Your task to perform on an android device: Open privacy settings Image 0: 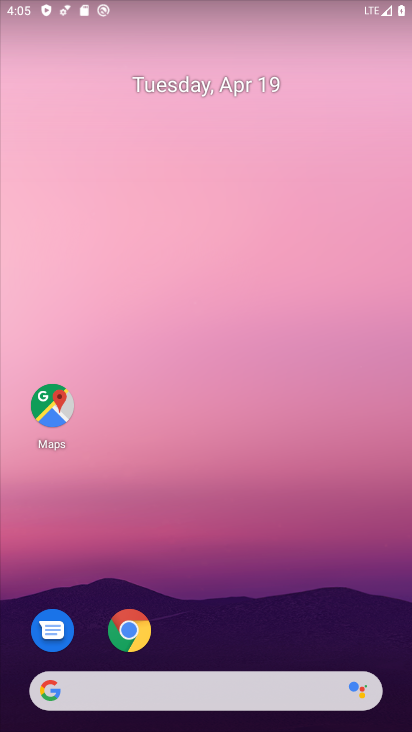
Step 0: drag from (203, 648) to (211, 166)
Your task to perform on an android device: Open privacy settings Image 1: 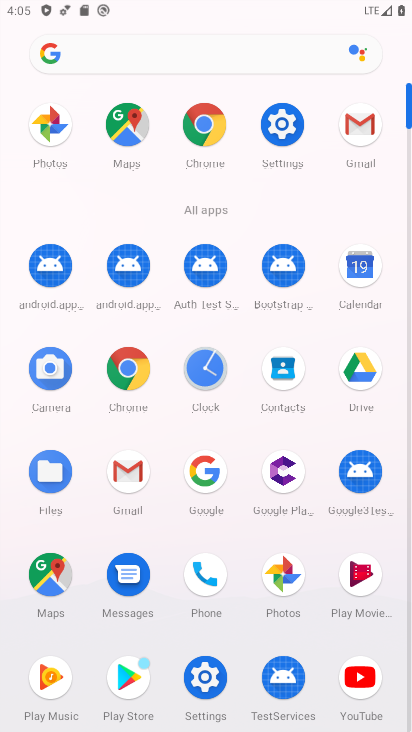
Step 1: click (272, 130)
Your task to perform on an android device: Open privacy settings Image 2: 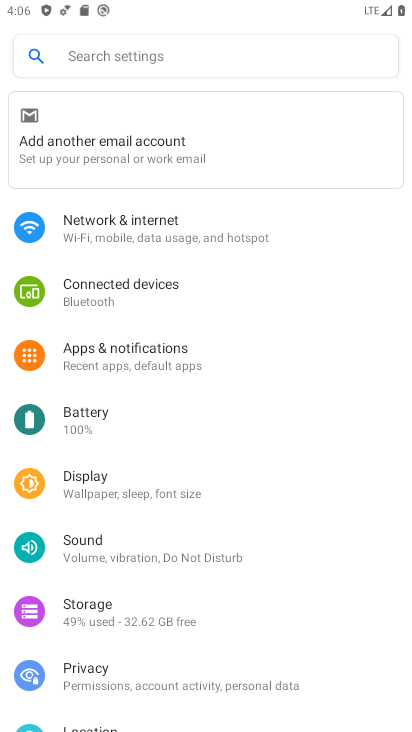
Step 2: drag from (172, 590) to (190, 310)
Your task to perform on an android device: Open privacy settings Image 3: 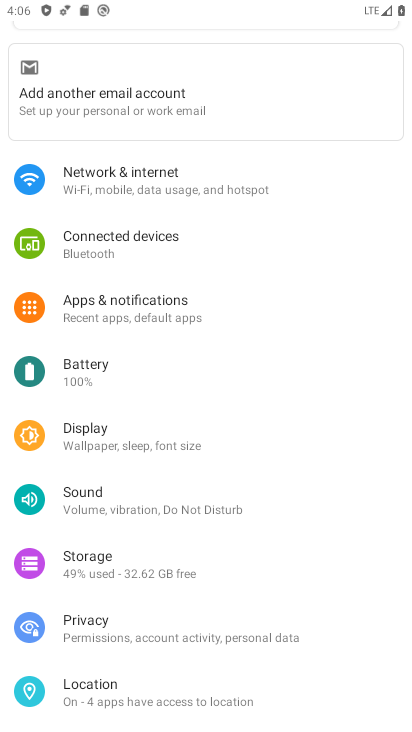
Step 3: click (107, 622)
Your task to perform on an android device: Open privacy settings Image 4: 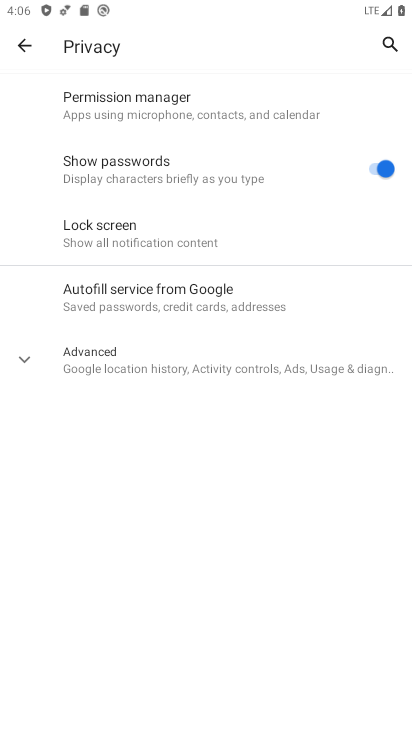
Step 4: task complete